Your task to perform on an android device: turn off data saver in the chrome app Image 0: 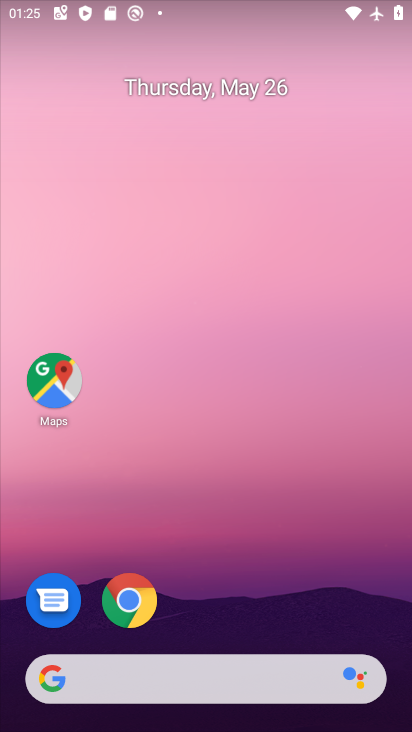
Step 0: click (129, 597)
Your task to perform on an android device: turn off data saver in the chrome app Image 1: 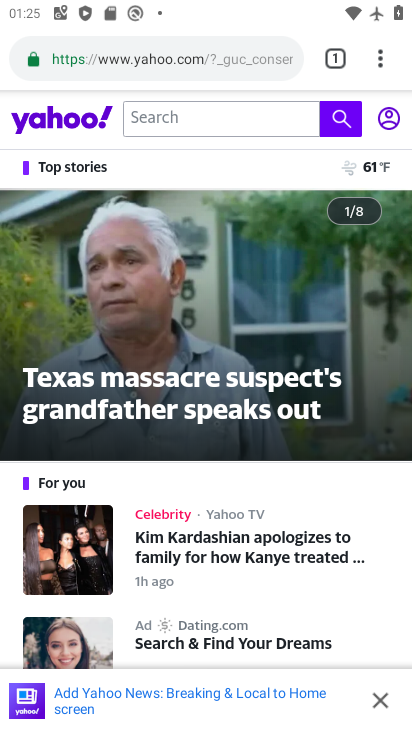
Step 1: drag from (381, 53) to (226, 630)
Your task to perform on an android device: turn off data saver in the chrome app Image 2: 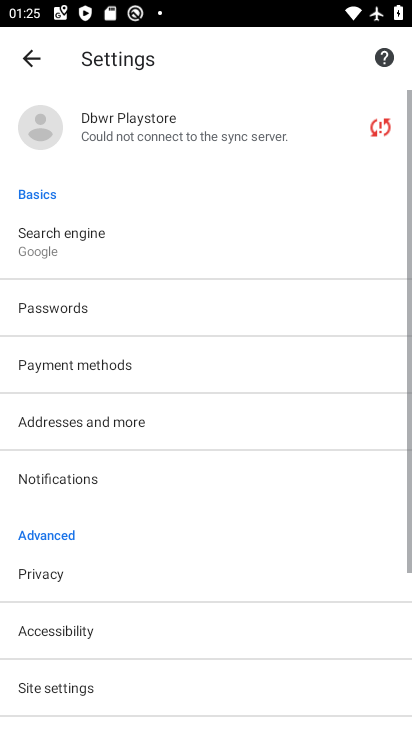
Step 2: drag from (226, 630) to (227, 162)
Your task to perform on an android device: turn off data saver in the chrome app Image 3: 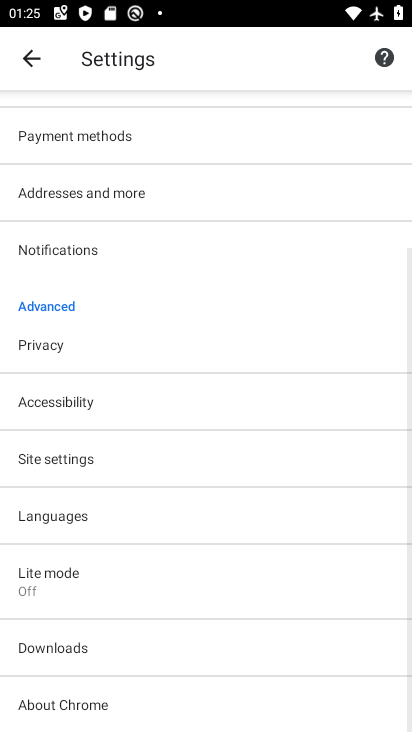
Step 3: click (82, 564)
Your task to perform on an android device: turn off data saver in the chrome app Image 4: 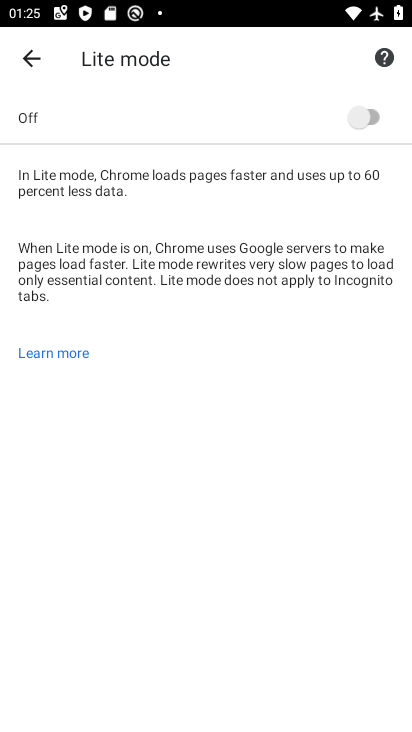
Step 4: task complete